Your task to perform on an android device: Open privacy settings Image 0: 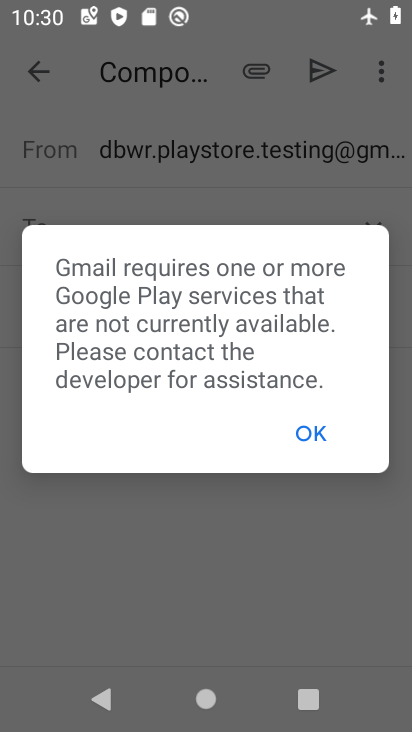
Step 0: press home button
Your task to perform on an android device: Open privacy settings Image 1: 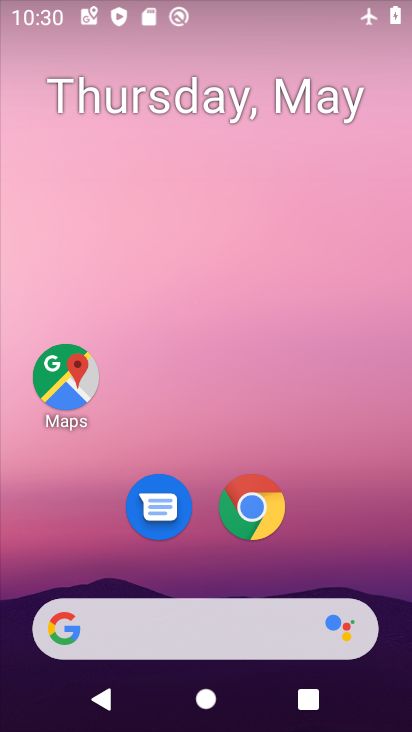
Step 1: drag from (259, 596) to (336, 44)
Your task to perform on an android device: Open privacy settings Image 2: 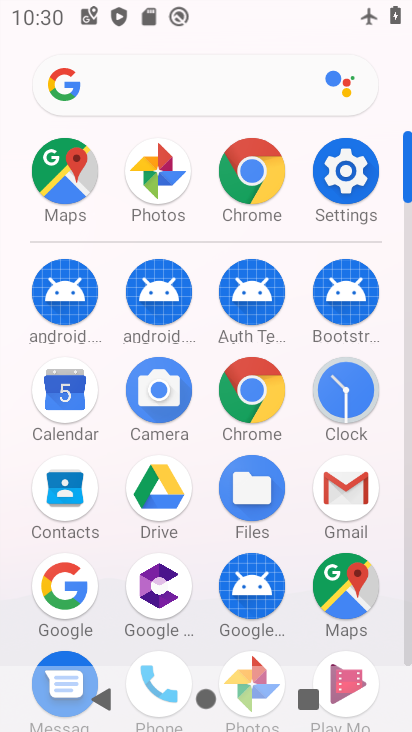
Step 2: click (348, 179)
Your task to perform on an android device: Open privacy settings Image 3: 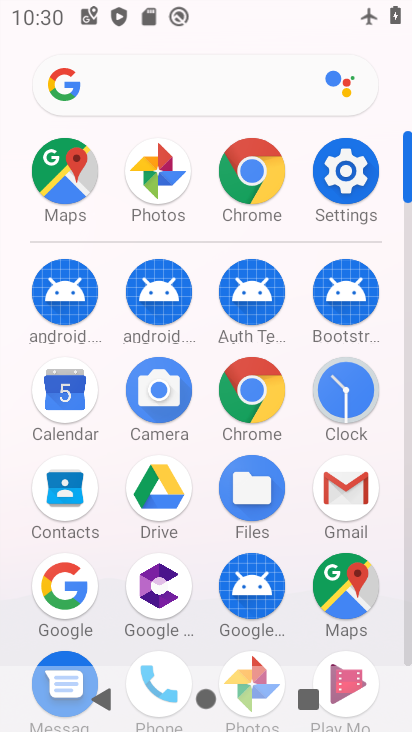
Step 3: click (340, 192)
Your task to perform on an android device: Open privacy settings Image 4: 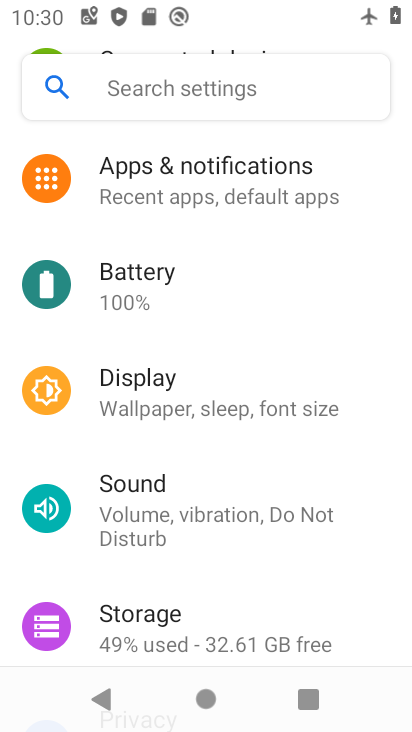
Step 4: drag from (186, 550) to (211, 297)
Your task to perform on an android device: Open privacy settings Image 5: 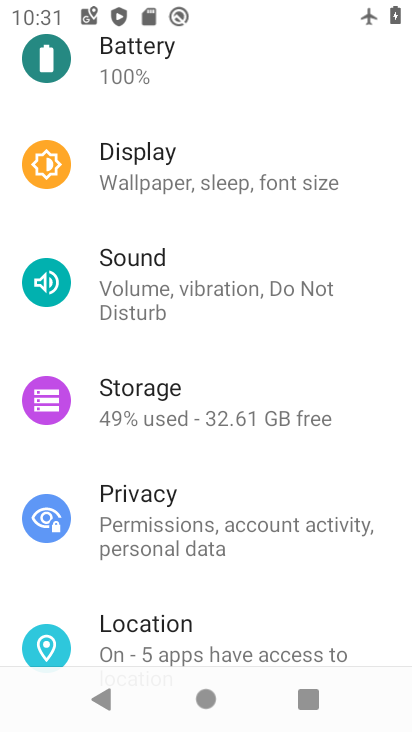
Step 5: drag from (216, 543) to (230, 417)
Your task to perform on an android device: Open privacy settings Image 6: 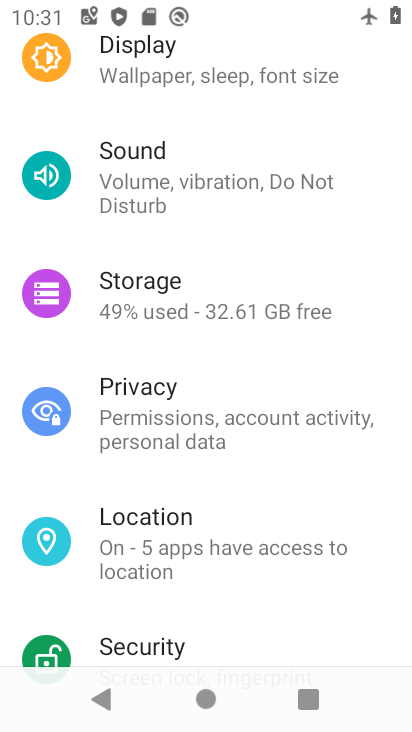
Step 6: click (231, 409)
Your task to perform on an android device: Open privacy settings Image 7: 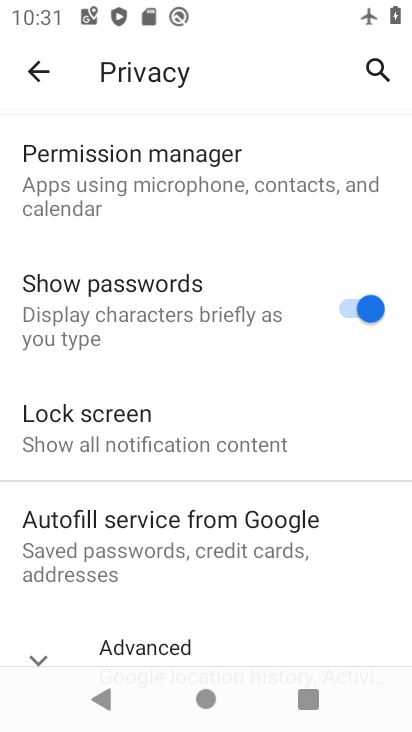
Step 7: task complete